Your task to perform on an android device: toggle notification dots Image 0: 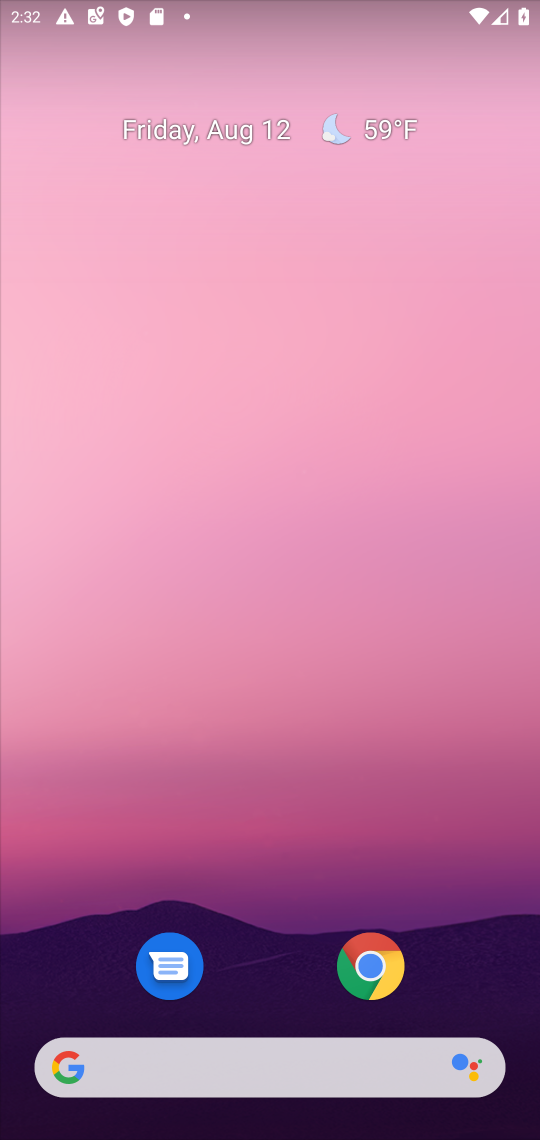
Step 0: drag from (266, 875) to (464, 142)
Your task to perform on an android device: toggle notification dots Image 1: 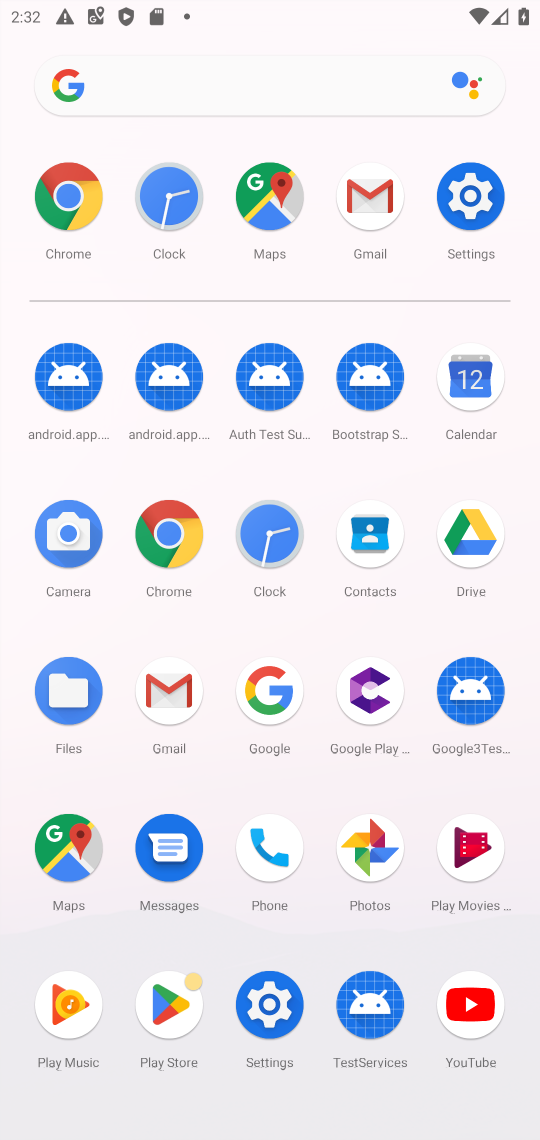
Step 1: click (261, 1006)
Your task to perform on an android device: toggle notification dots Image 2: 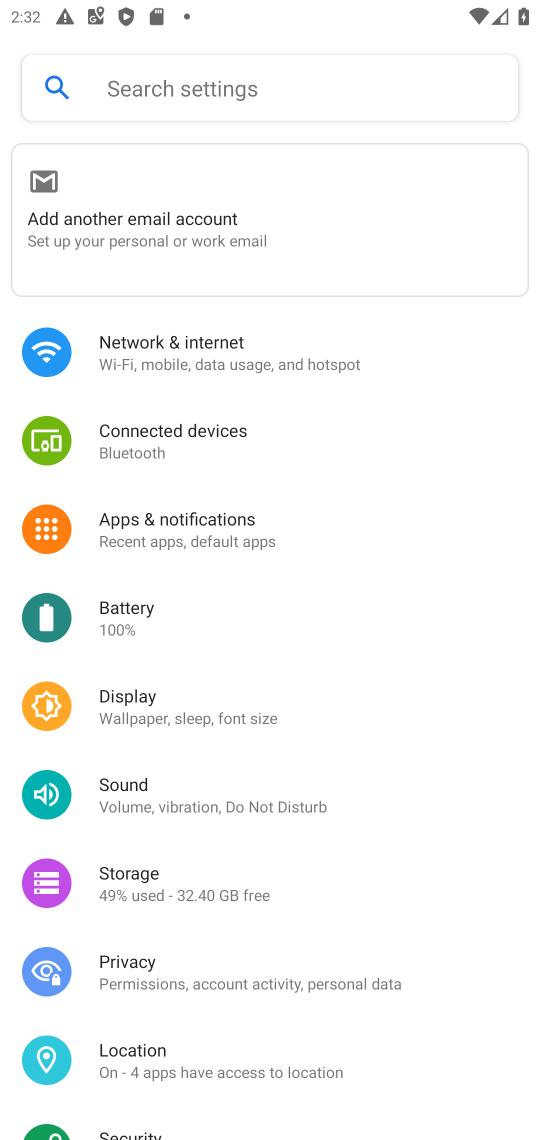
Step 2: click (205, 520)
Your task to perform on an android device: toggle notification dots Image 3: 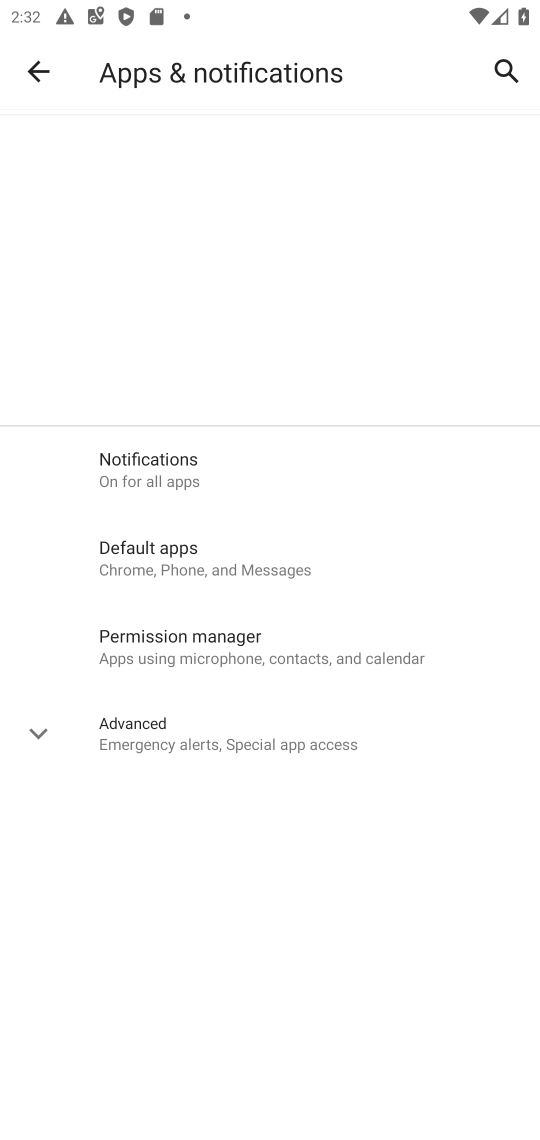
Step 3: click (161, 473)
Your task to perform on an android device: toggle notification dots Image 4: 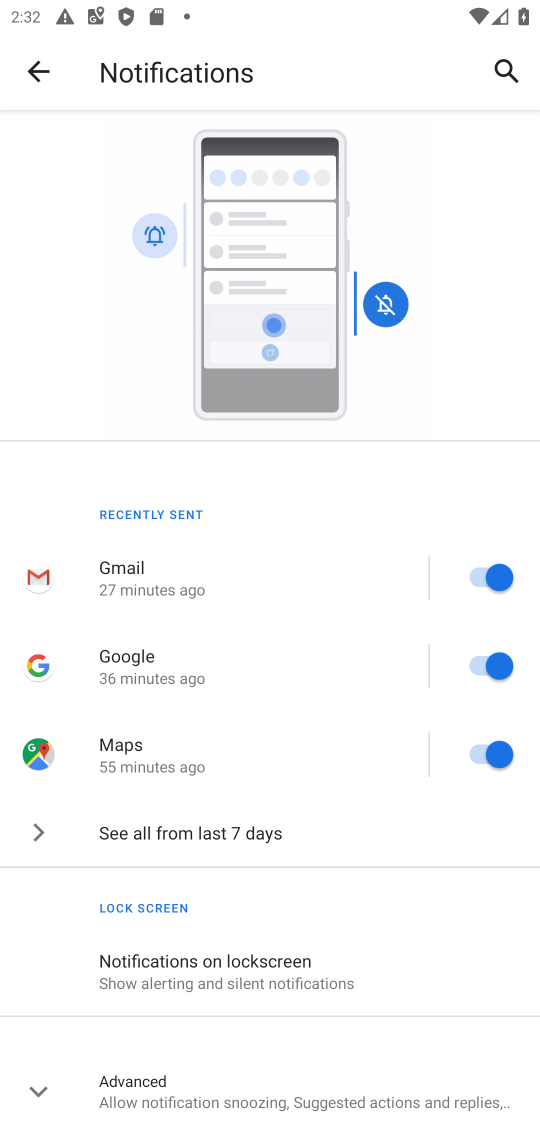
Step 4: drag from (228, 967) to (338, 315)
Your task to perform on an android device: toggle notification dots Image 5: 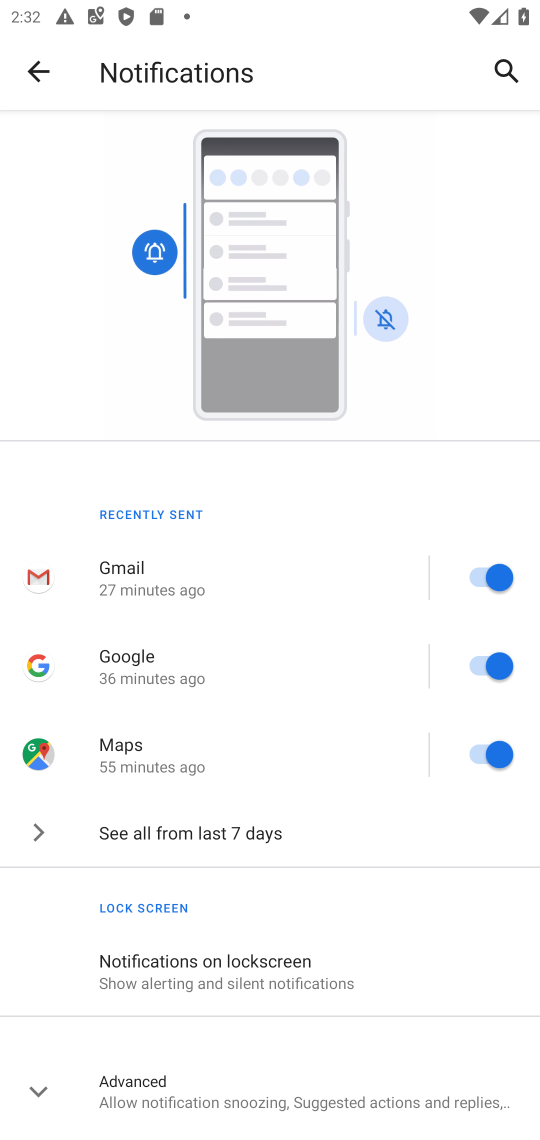
Step 5: click (152, 1107)
Your task to perform on an android device: toggle notification dots Image 6: 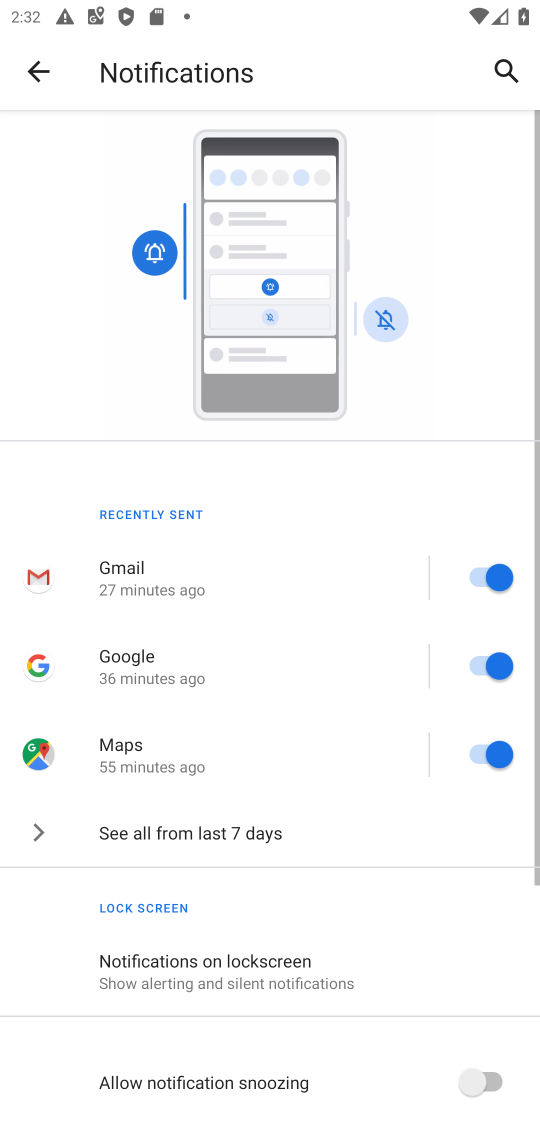
Step 6: drag from (388, 1010) to (414, 264)
Your task to perform on an android device: toggle notification dots Image 7: 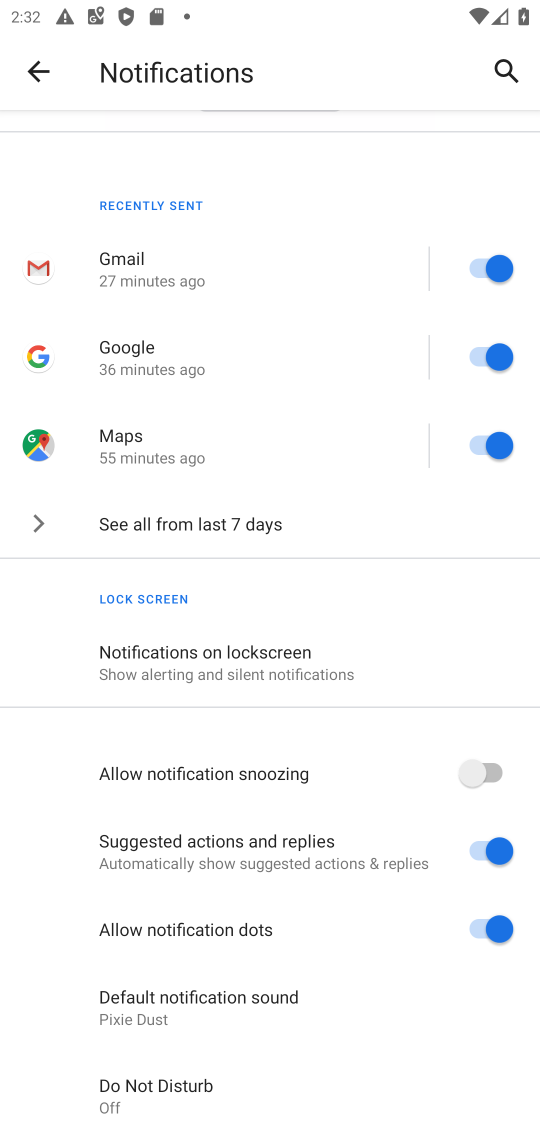
Step 7: click (498, 920)
Your task to perform on an android device: toggle notification dots Image 8: 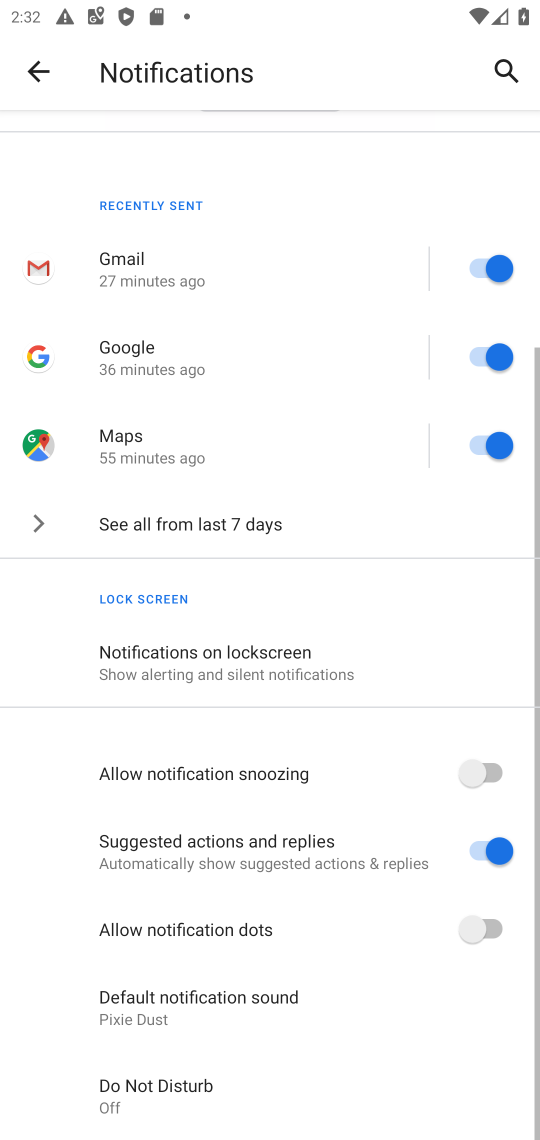
Step 8: task complete